Your task to perform on an android device: toggle location history Image 0: 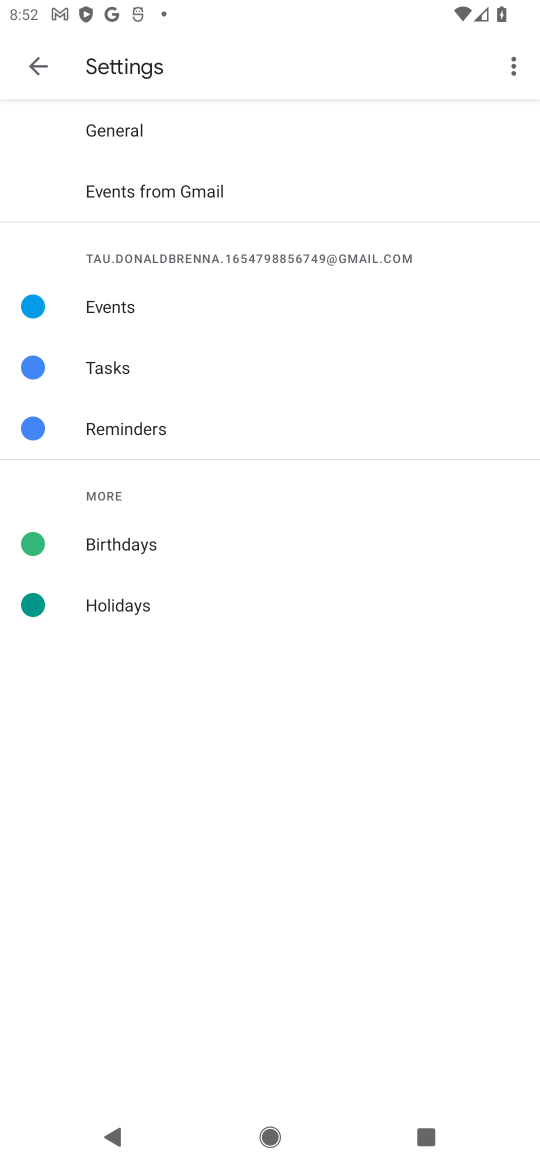
Step 0: press back button
Your task to perform on an android device: toggle location history Image 1: 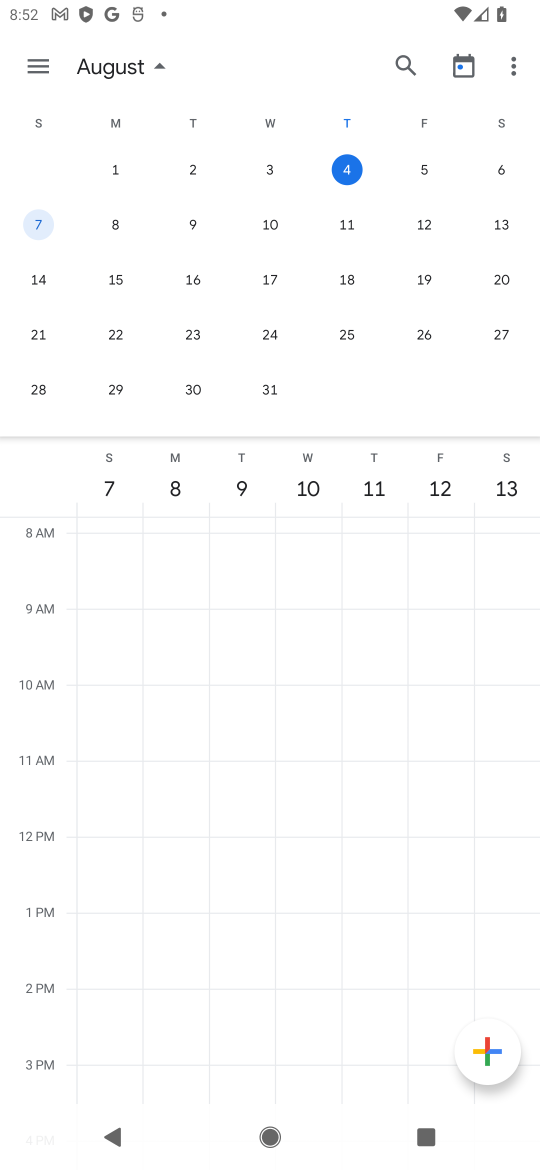
Step 1: press home button
Your task to perform on an android device: toggle location history Image 2: 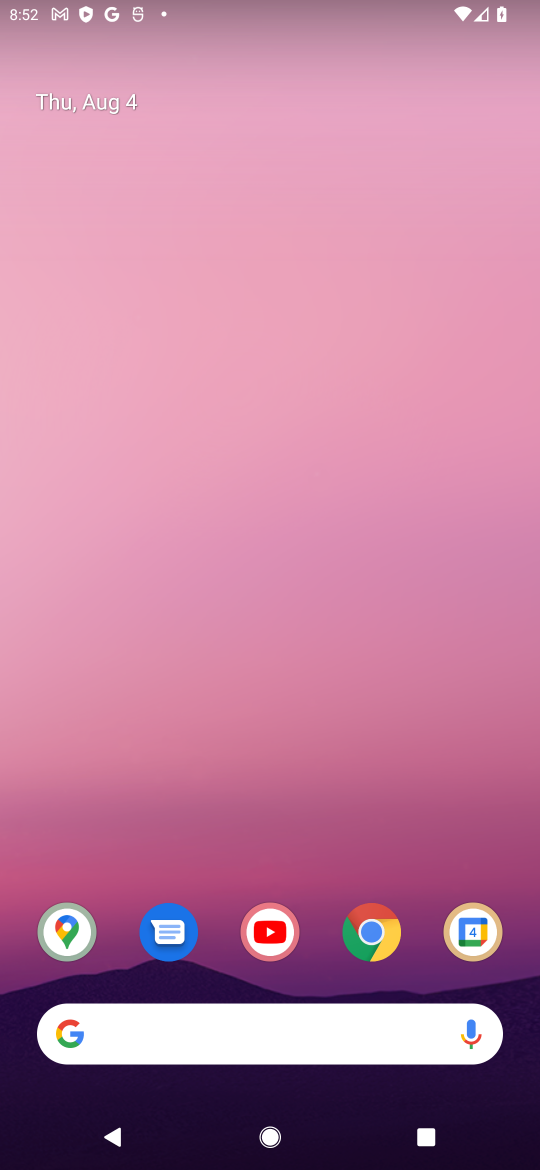
Step 2: drag from (317, 931) to (316, 521)
Your task to perform on an android device: toggle location history Image 3: 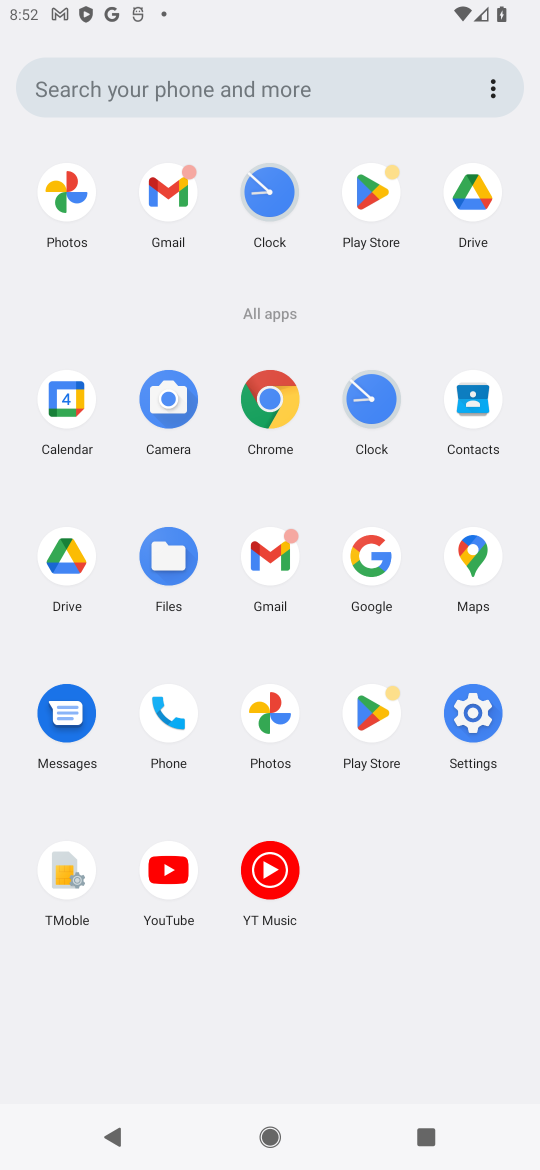
Step 3: click (462, 707)
Your task to perform on an android device: toggle location history Image 4: 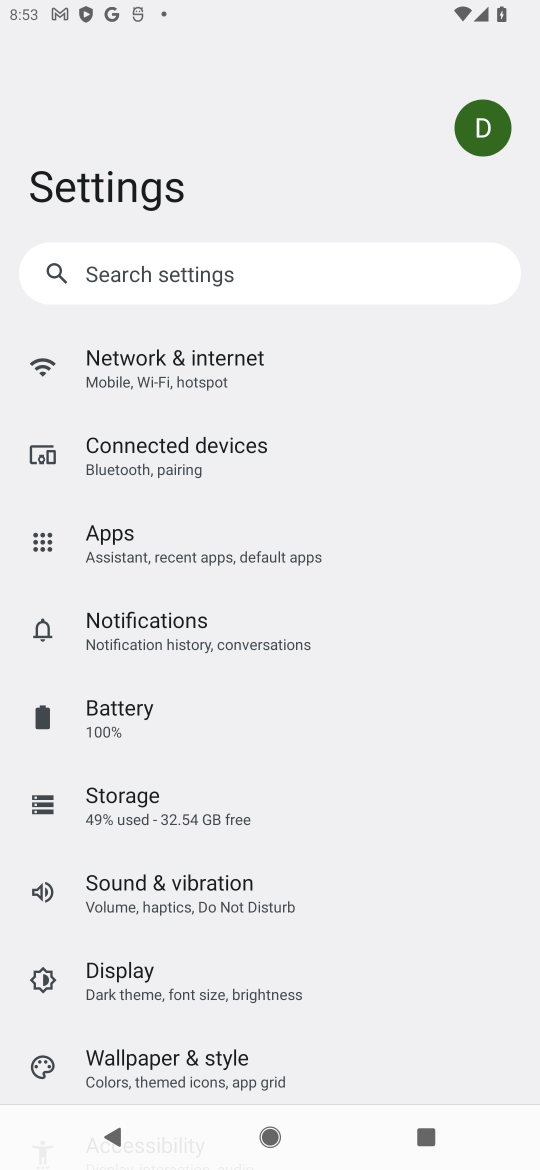
Step 4: drag from (163, 975) to (163, 513)
Your task to perform on an android device: toggle location history Image 5: 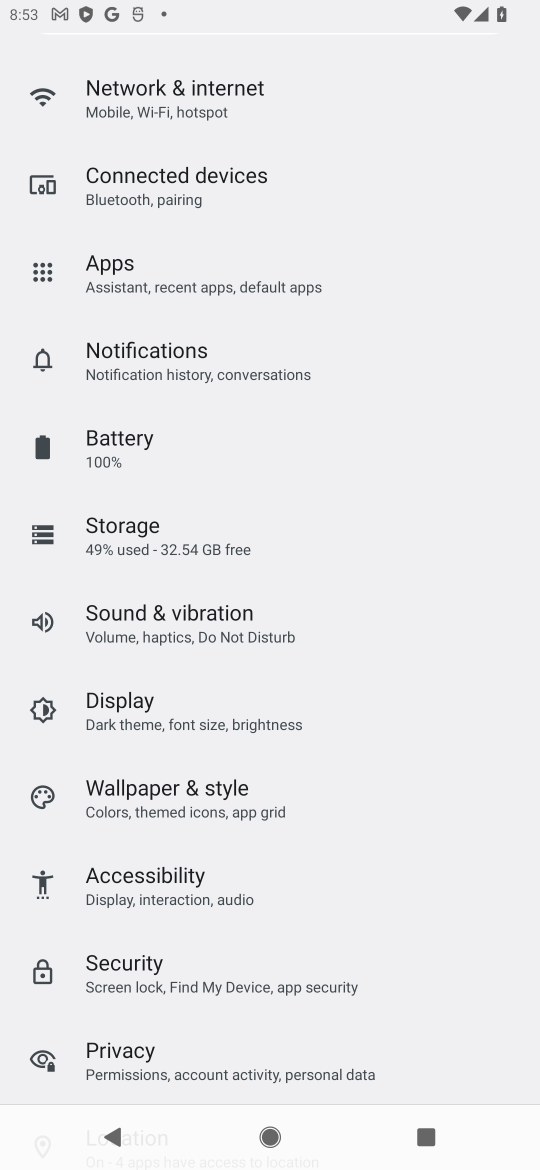
Step 5: drag from (195, 547) to (198, 918)
Your task to perform on an android device: toggle location history Image 6: 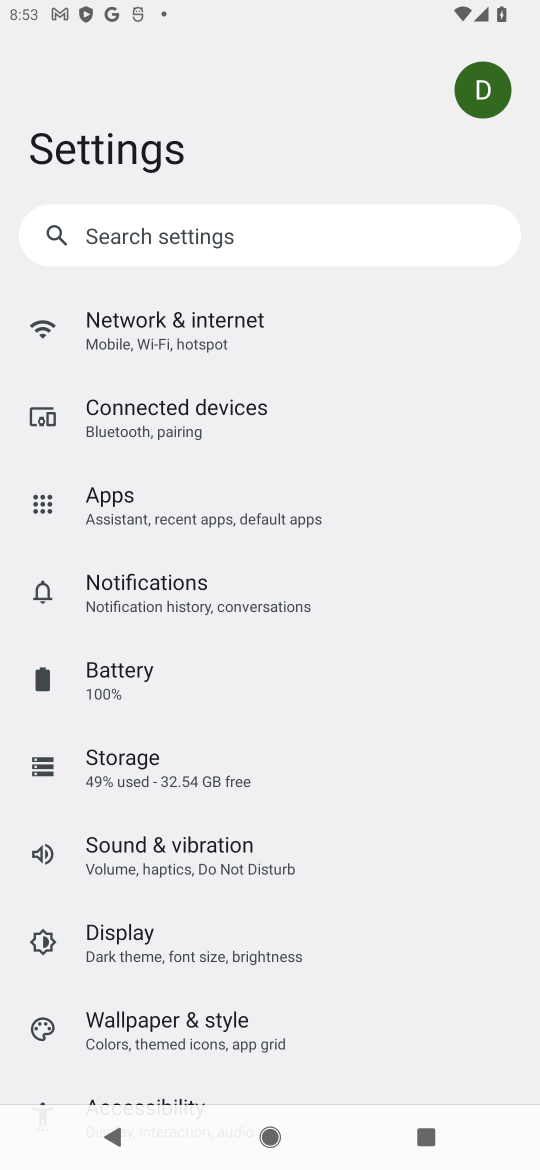
Step 6: drag from (156, 903) to (178, 612)
Your task to perform on an android device: toggle location history Image 7: 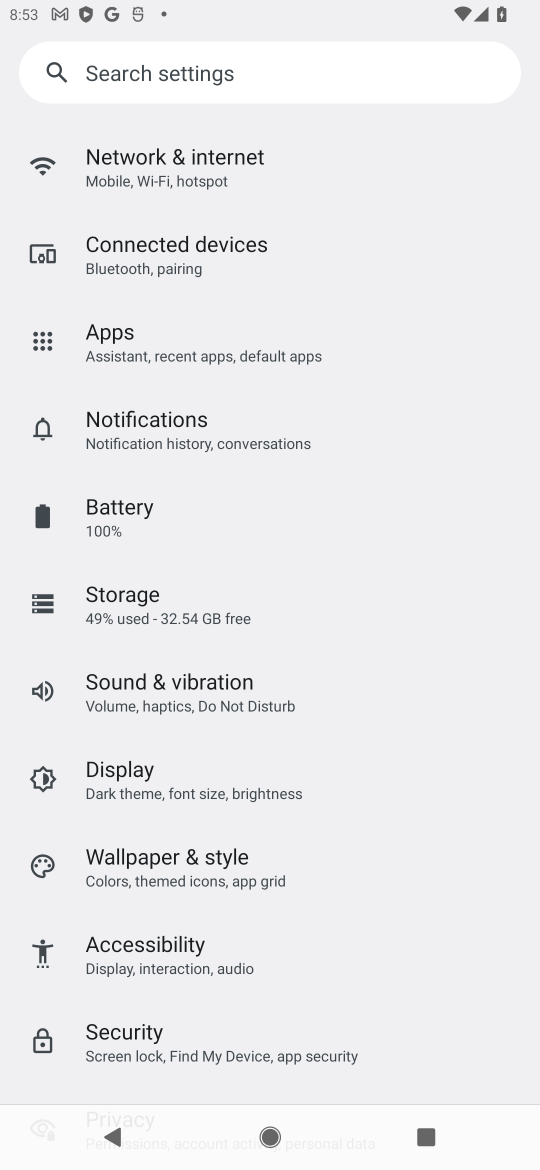
Step 7: drag from (195, 756) to (200, 390)
Your task to perform on an android device: toggle location history Image 8: 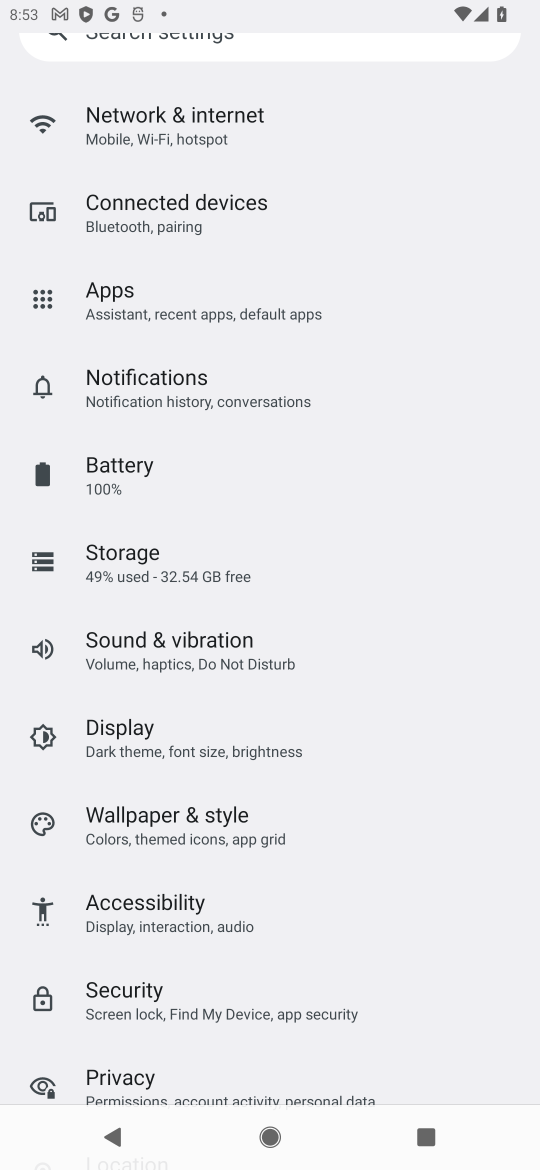
Step 8: drag from (146, 847) to (146, 482)
Your task to perform on an android device: toggle location history Image 9: 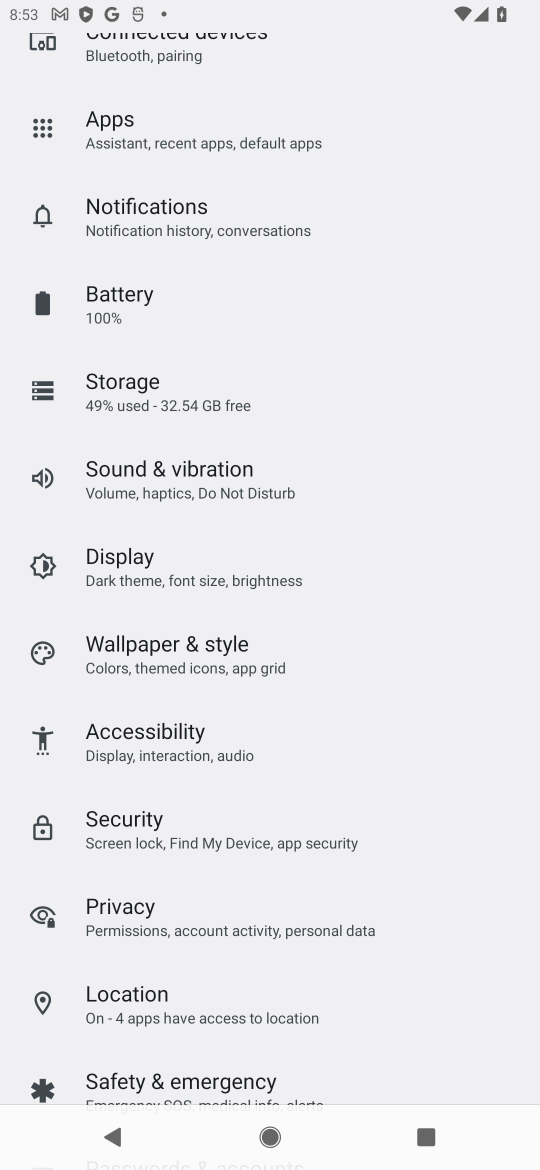
Step 9: click (126, 1019)
Your task to perform on an android device: toggle location history Image 10: 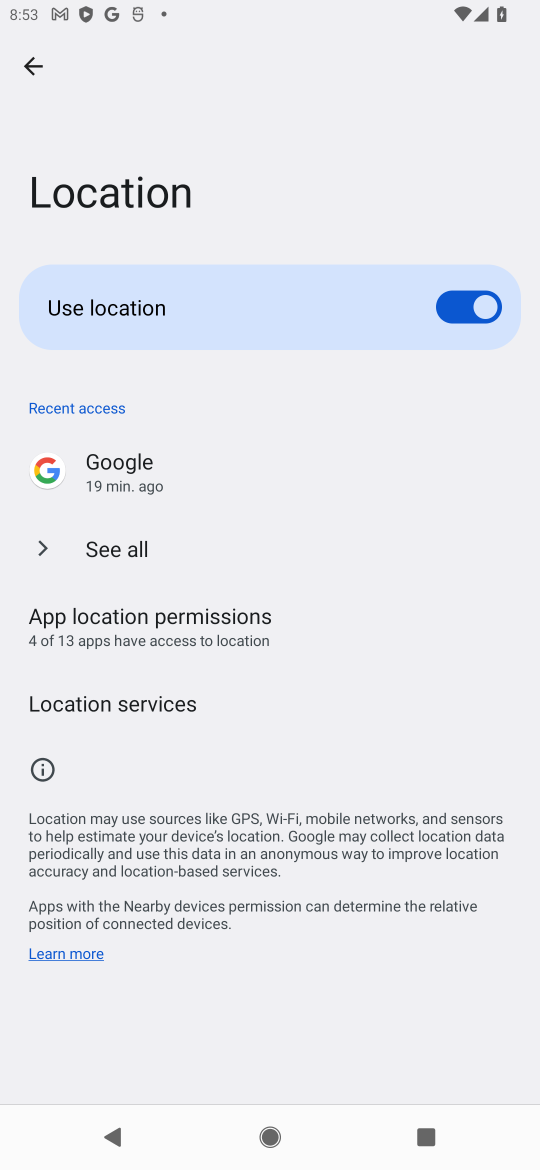
Step 10: click (170, 716)
Your task to perform on an android device: toggle location history Image 11: 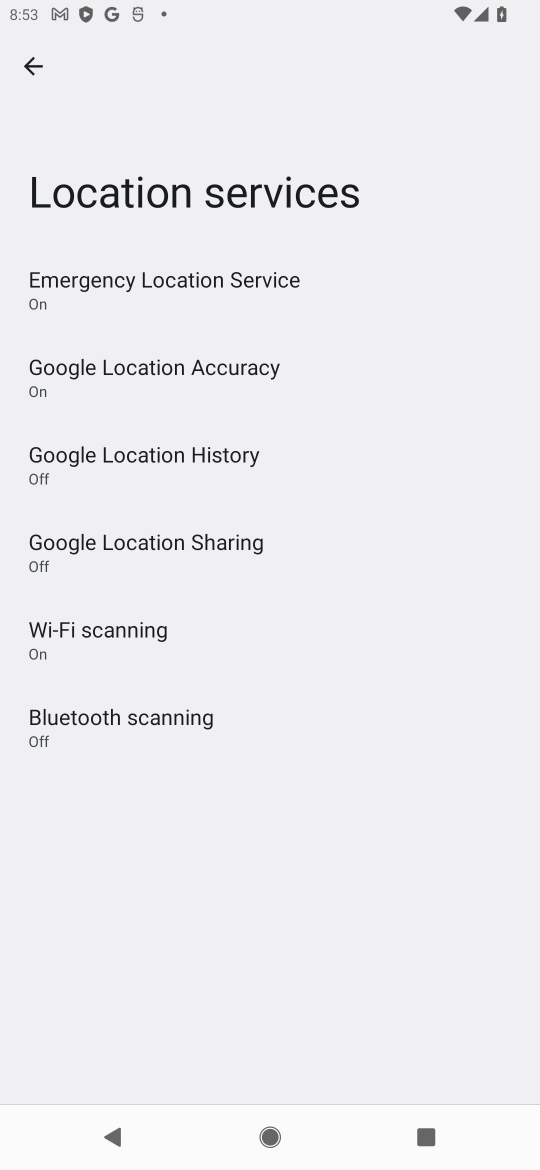
Step 11: click (171, 456)
Your task to perform on an android device: toggle location history Image 12: 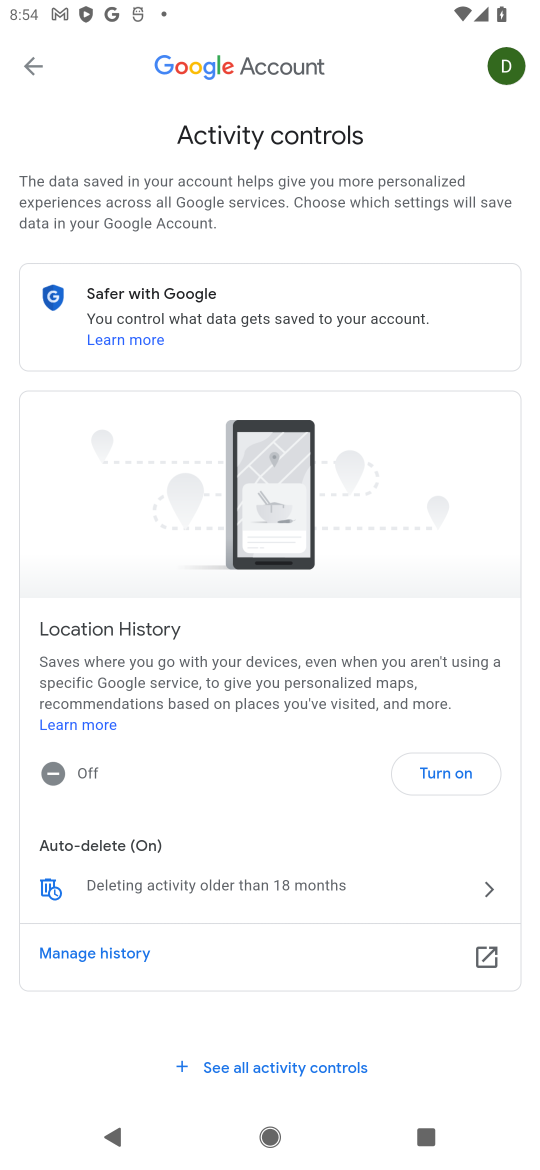
Step 12: click (455, 770)
Your task to perform on an android device: toggle location history Image 13: 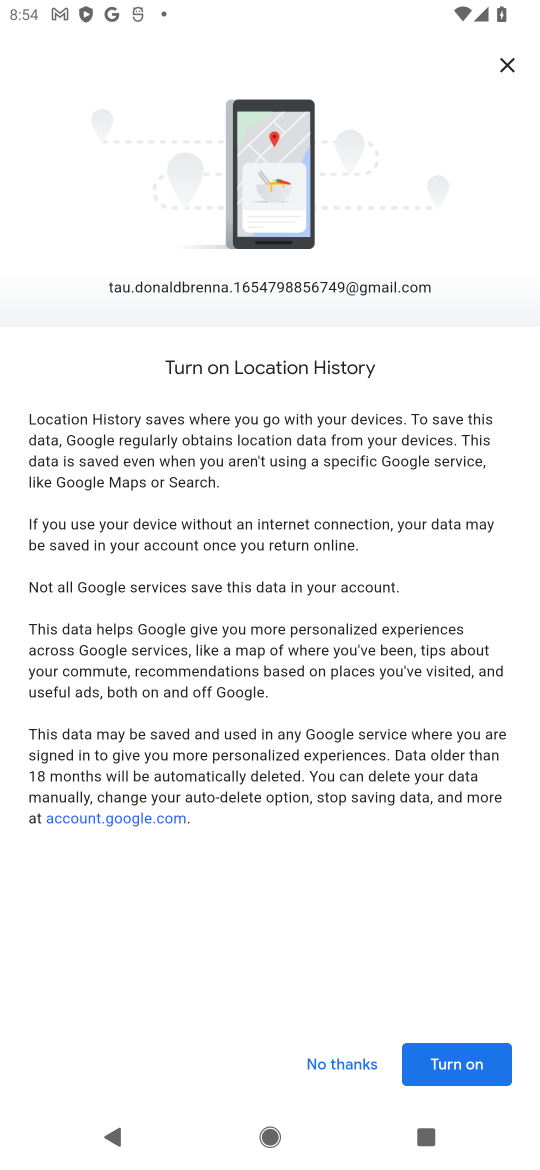
Step 13: click (424, 1070)
Your task to perform on an android device: toggle location history Image 14: 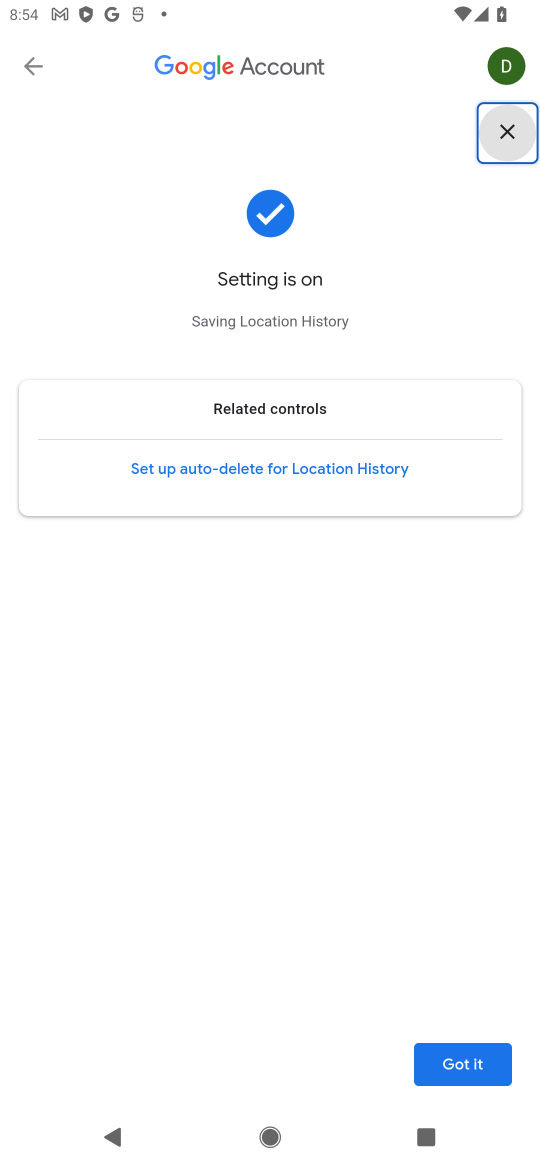
Step 14: click (424, 1070)
Your task to perform on an android device: toggle location history Image 15: 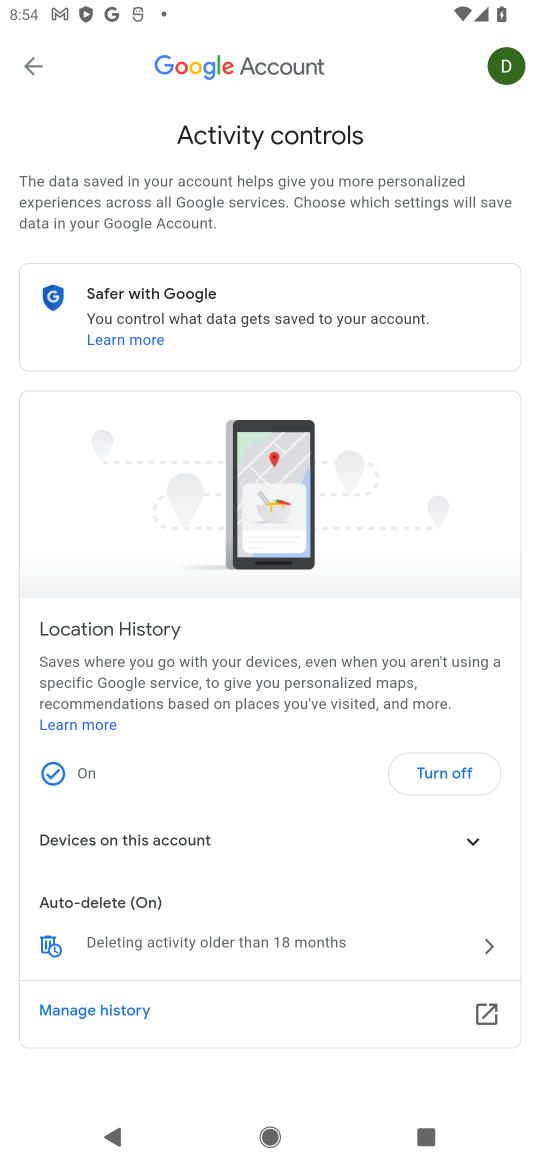
Step 15: task complete